Your task to perform on an android device: Empty the shopping cart on target.com. Search for "rayovac triple a" on target.com, select the first entry, add it to the cart, then select checkout. Image 0: 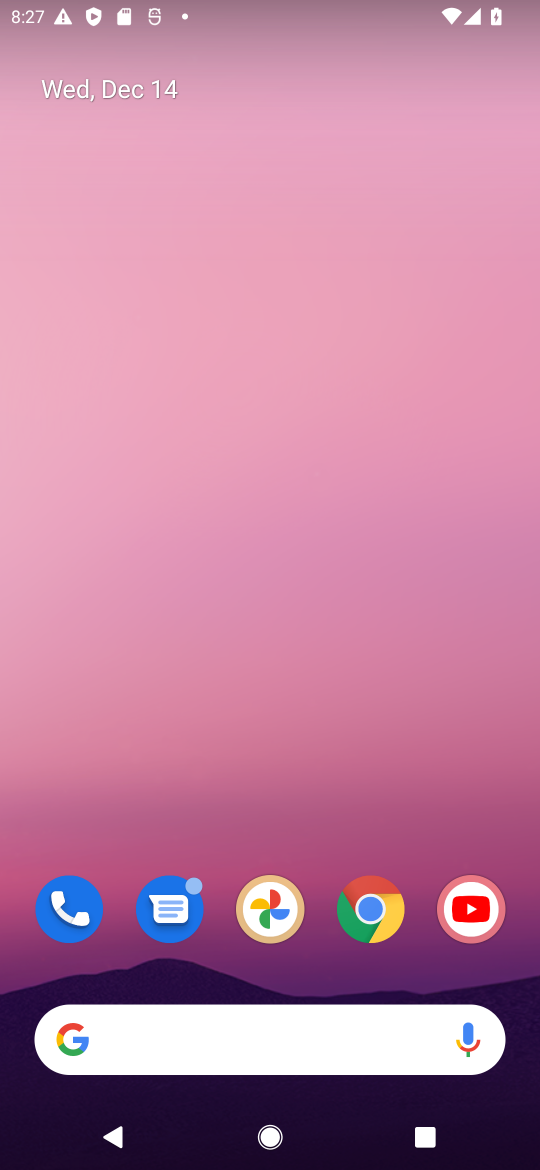
Step 0: click (361, 929)
Your task to perform on an android device: Empty the shopping cart on target.com. Search for "rayovac triple a" on target.com, select the first entry, add it to the cart, then select checkout. Image 1: 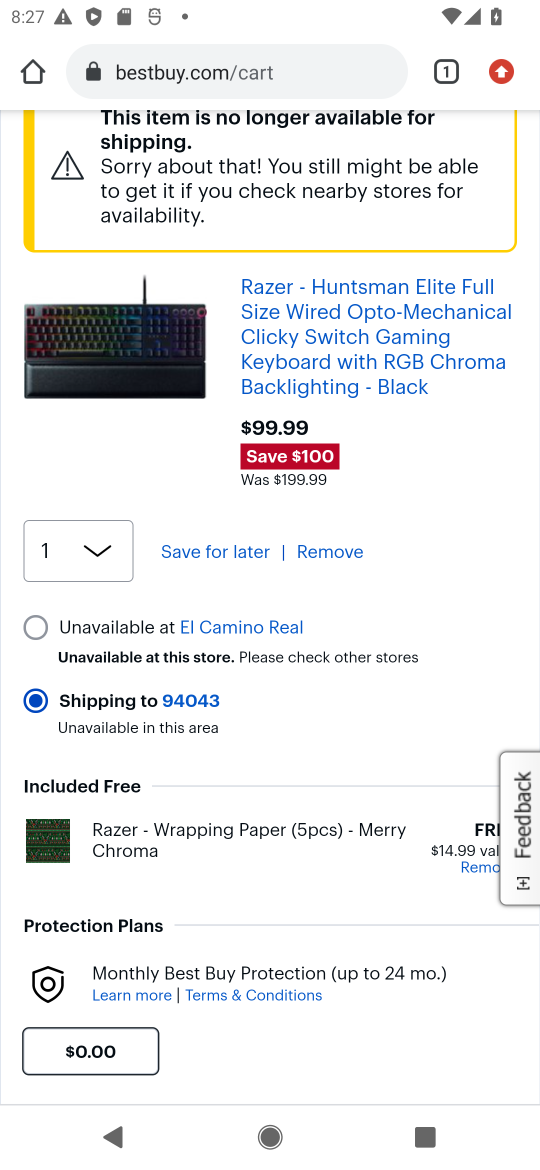
Step 1: click (194, 80)
Your task to perform on an android device: Empty the shopping cart on target.com. Search for "rayovac triple a" on target.com, select the first entry, add it to the cart, then select checkout. Image 2: 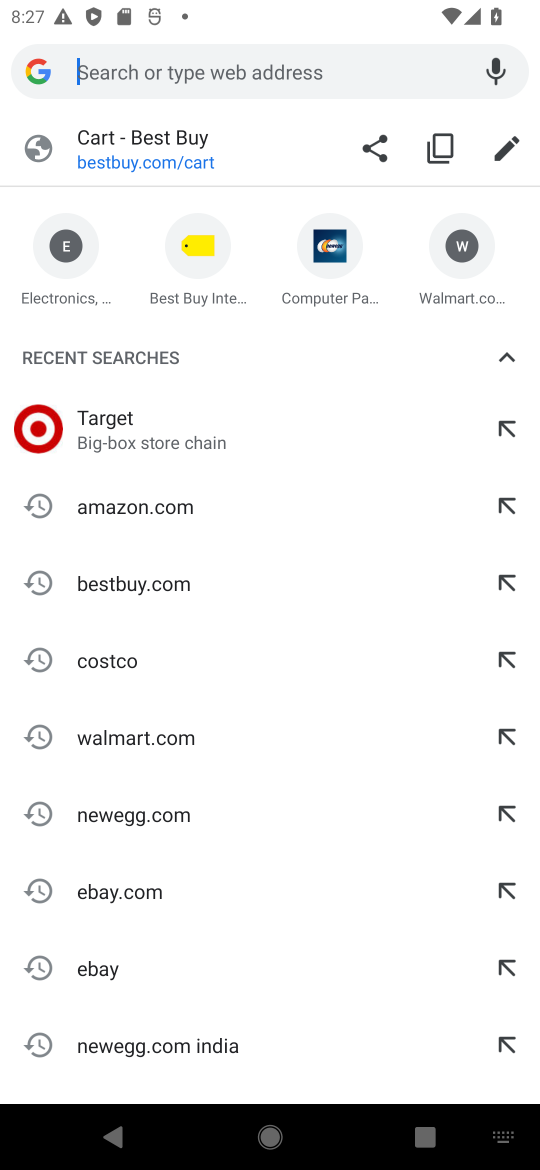
Step 2: type "target.com"
Your task to perform on an android device: Empty the shopping cart on target.com. Search for "rayovac triple a" on target.com, select the first entry, add it to the cart, then select checkout. Image 3: 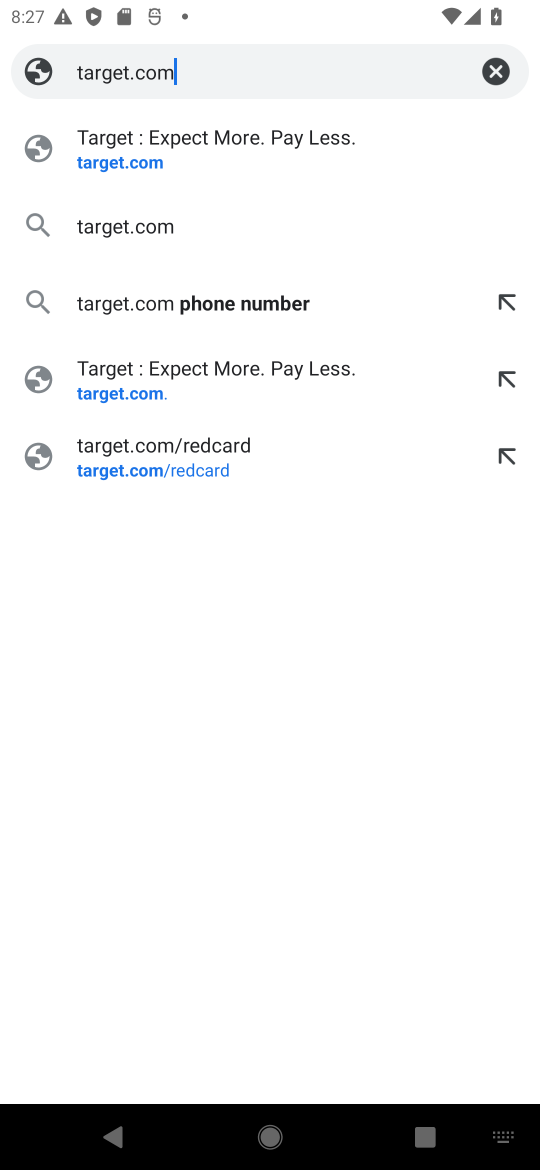
Step 3: click (207, 168)
Your task to perform on an android device: Empty the shopping cart on target.com. Search for "rayovac triple a" on target.com, select the first entry, add it to the cart, then select checkout. Image 4: 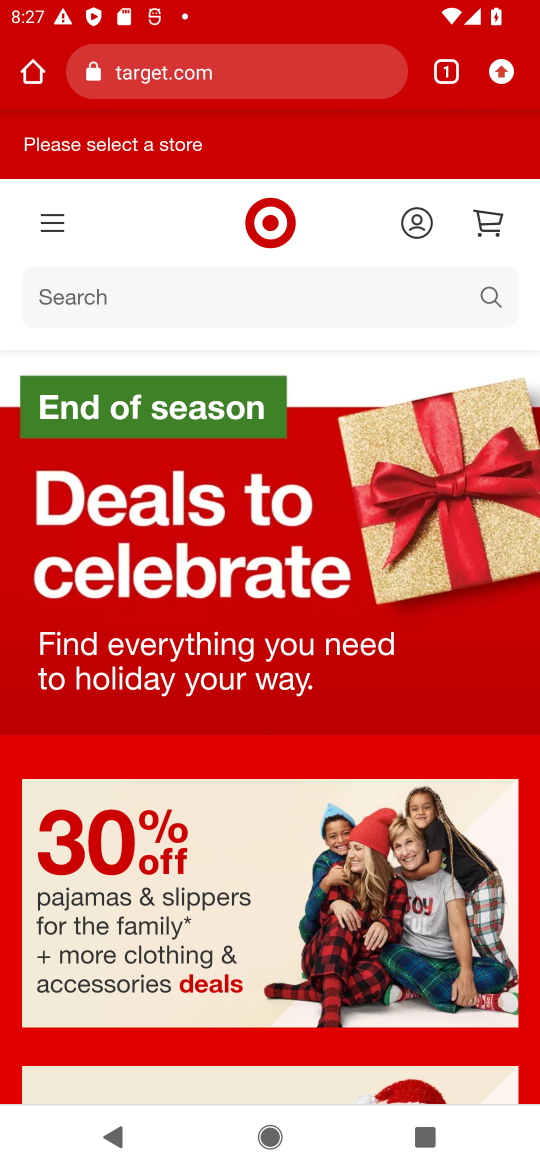
Step 4: click (105, 299)
Your task to perform on an android device: Empty the shopping cart on target.com. Search for "rayovac triple a" on target.com, select the first entry, add it to the cart, then select checkout. Image 5: 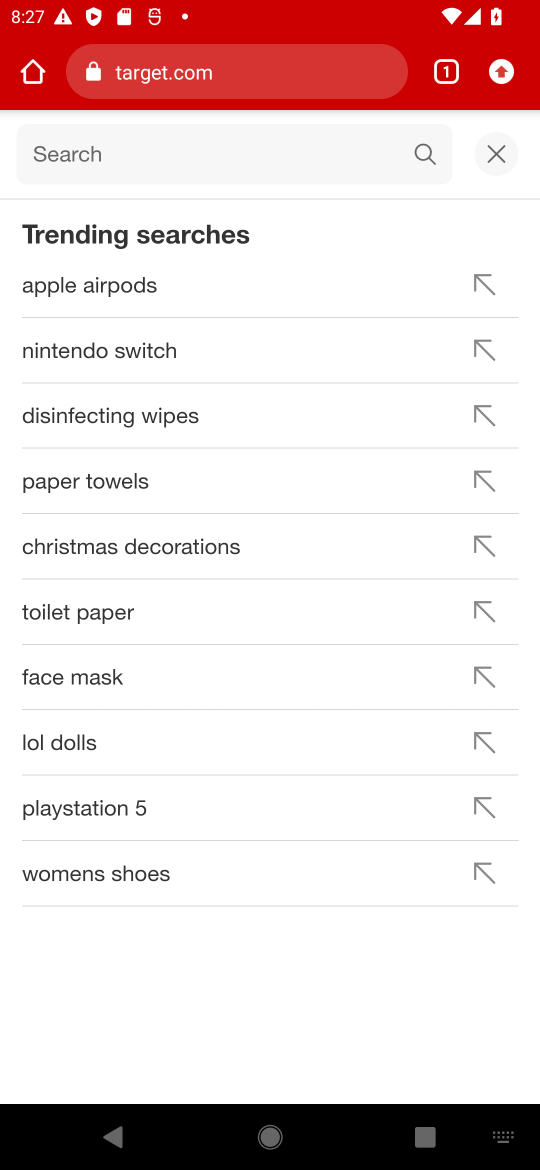
Step 5: type "rayovac triple a"
Your task to perform on an android device: Empty the shopping cart on target.com. Search for "rayovac triple a" on target.com, select the first entry, add it to the cart, then select checkout. Image 6: 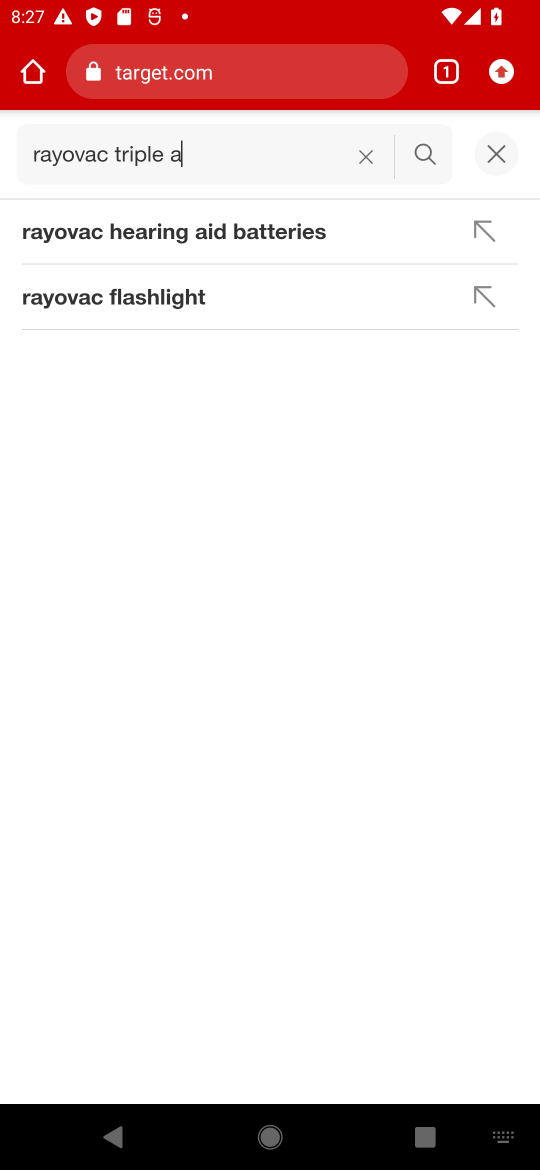
Step 6: press enter
Your task to perform on an android device: Empty the shopping cart on target.com. Search for "rayovac triple a" on target.com, select the first entry, add it to the cart, then select checkout. Image 7: 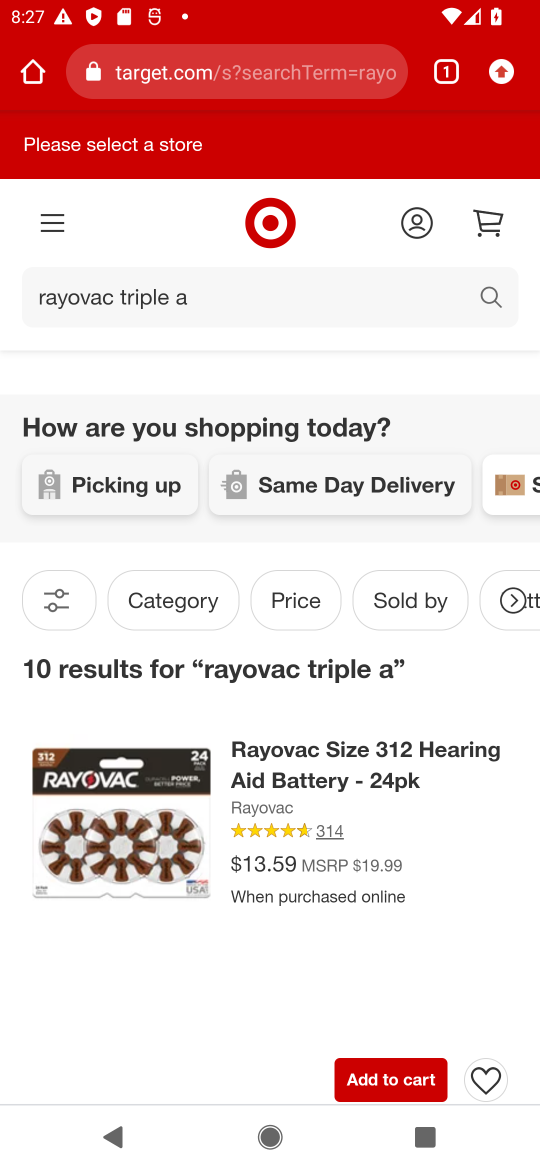
Step 7: task complete